Your task to perform on an android device: change the clock display to digital Image 0: 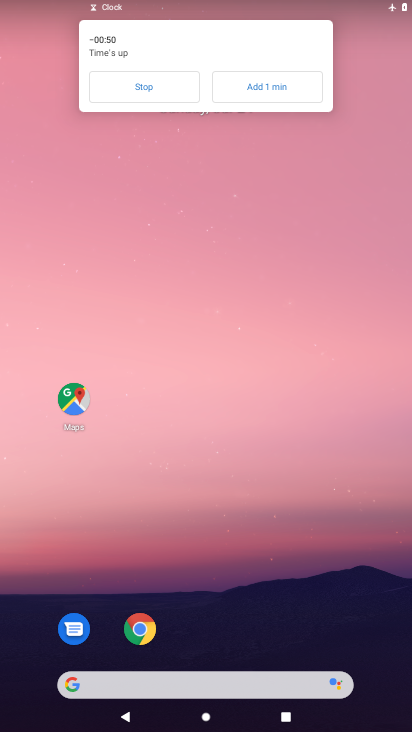
Step 0: drag from (274, 665) to (225, 0)
Your task to perform on an android device: change the clock display to digital Image 1: 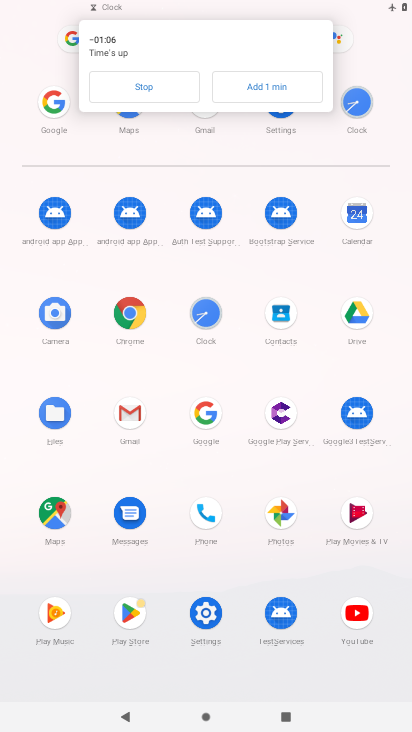
Step 1: click (208, 320)
Your task to perform on an android device: change the clock display to digital Image 2: 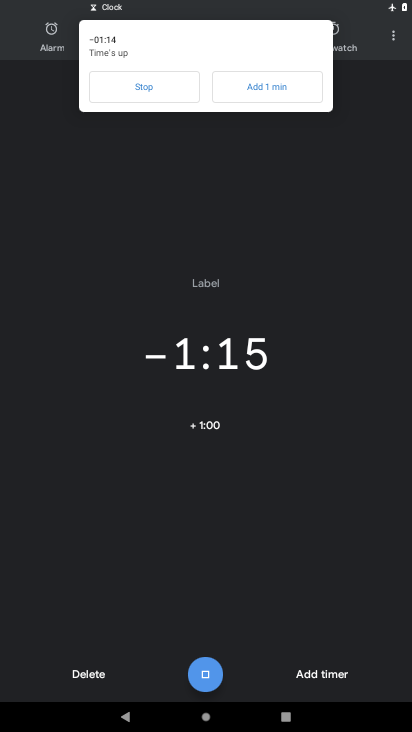
Step 2: click (394, 40)
Your task to perform on an android device: change the clock display to digital Image 3: 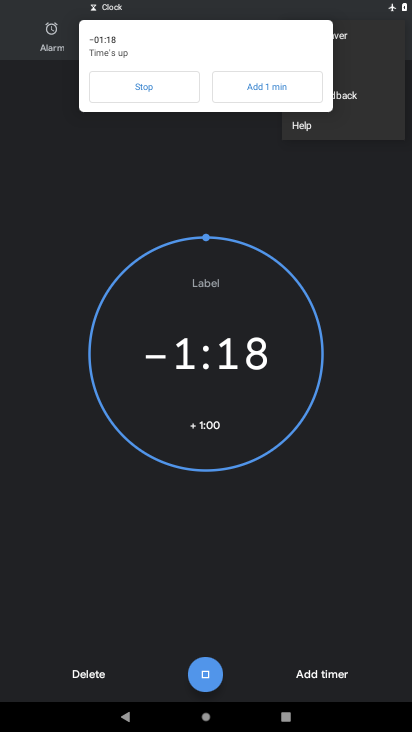
Step 3: click (360, 65)
Your task to perform on an android device: change the clock display to digital Image 4: 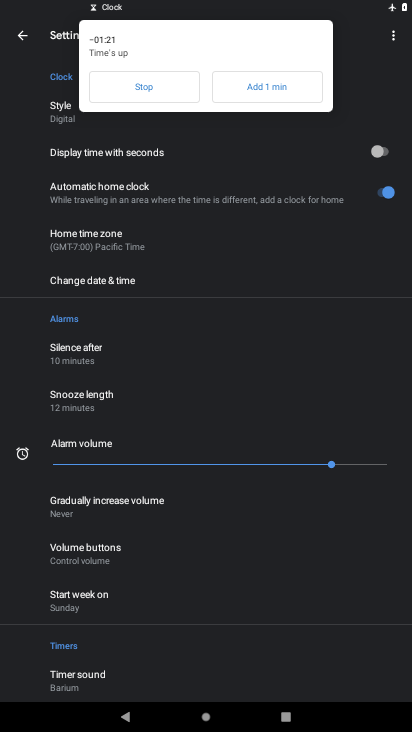
Step 4: click (167, 93)
Your task to perform on an android device: change the clock display to digital Image 5: 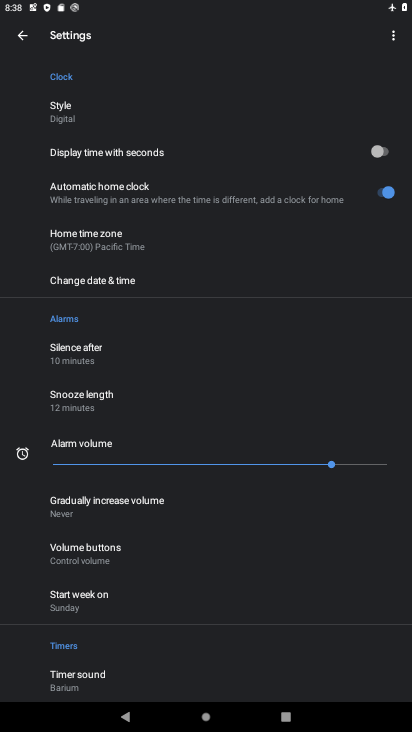
Step 5: click (114, 117)
Your task to perform on an android device: change the clock display to digital Image 6: 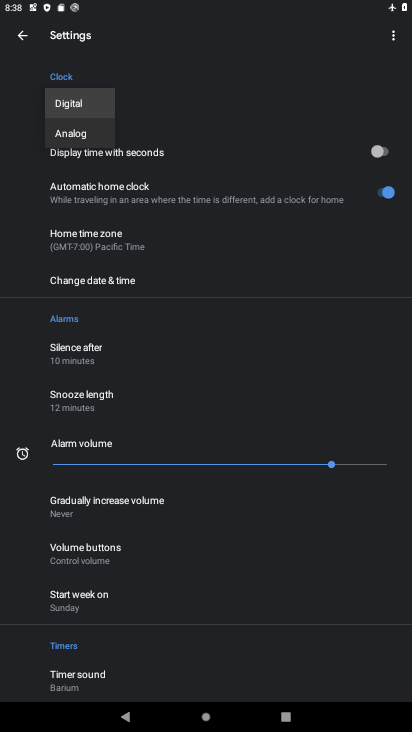
Step 6: click (83, 135)
Your task to perform on an android device: change the clock display to digital Image 7: 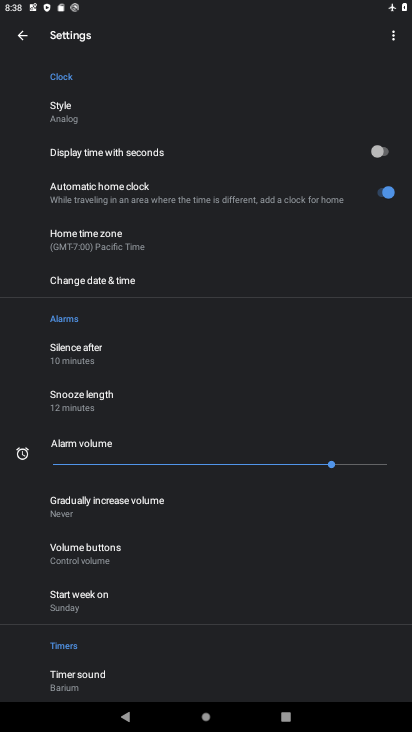
Step 7: task complete